Your task to perform on an android device: Go to Google maps Image 0: 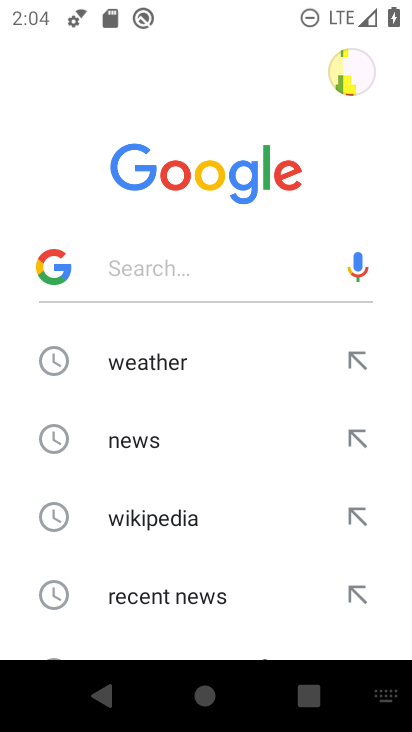
Step 0: press home button
Your task to perform on an android device: Go to Google maps Image 1: 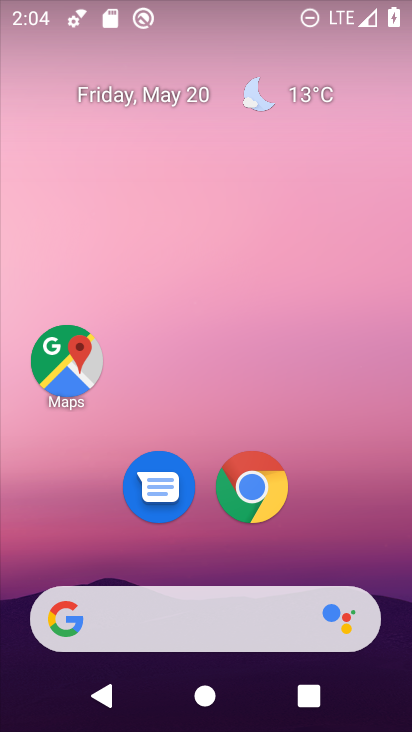
Step 1: click (67, 357)
Your task to perform on an android device: Go to Google maps Image 2: 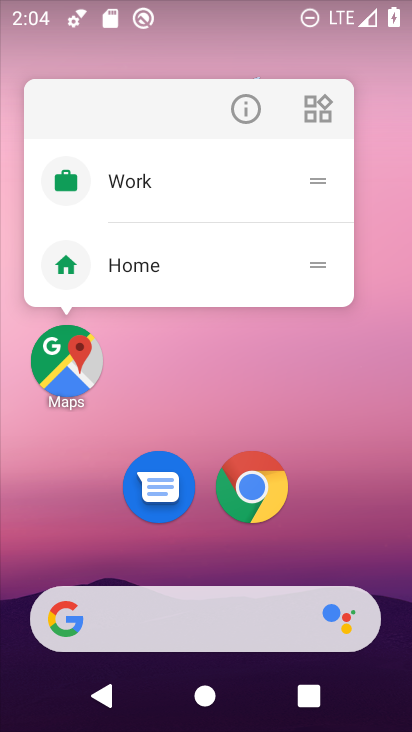
Step 2: click (65, 354)
Your task to perform on an android device: Go to Google maps Image 3: 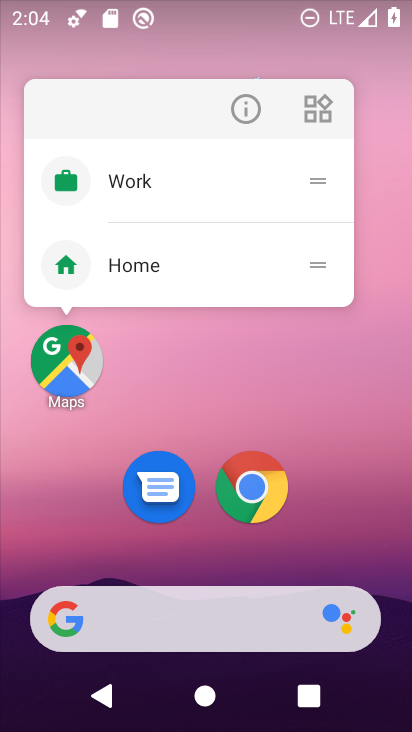
Step 3: click (62, 351)
Your task to perform on an android device: Go to Google maps Image 4: 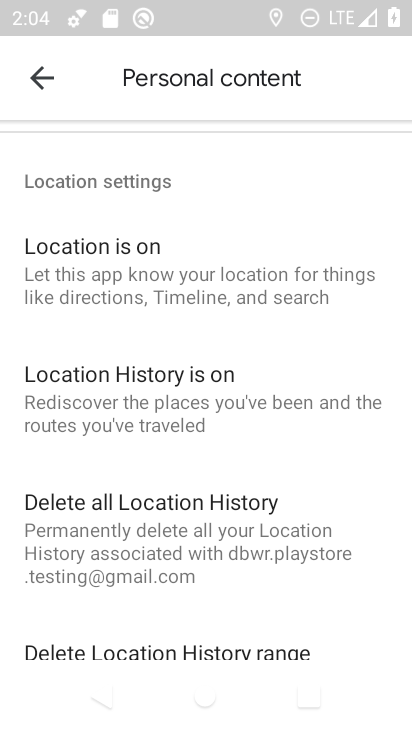
Step 4: click (52, 79)
Your task to perform on an android device: Go to Google maps Image 5: 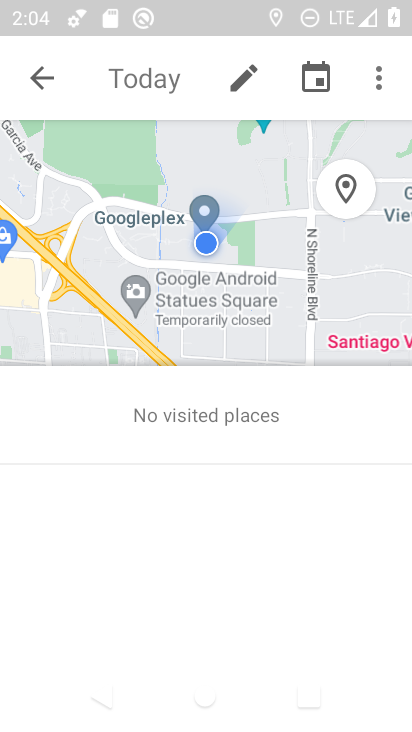
Step 5: click (52, 79)
Your task to perform on an android device: Go to Google maps Image 6: 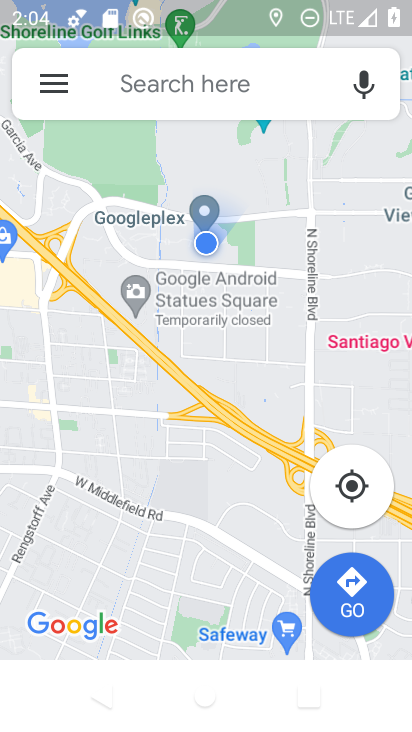
Step 6: task complete